Your task to perform on an android device: Add "razer deathadder" to the cart on walmart.com Image 0: 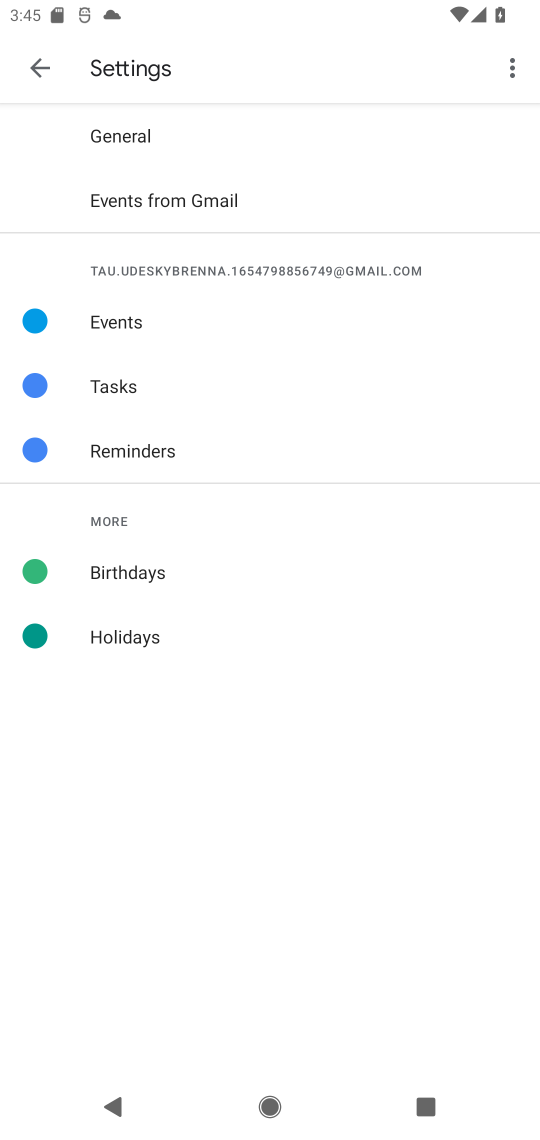
Step 0: press home button
Your task to perform on an android device: Add "razer deathadder" to the cart on walmart.com Image 1: 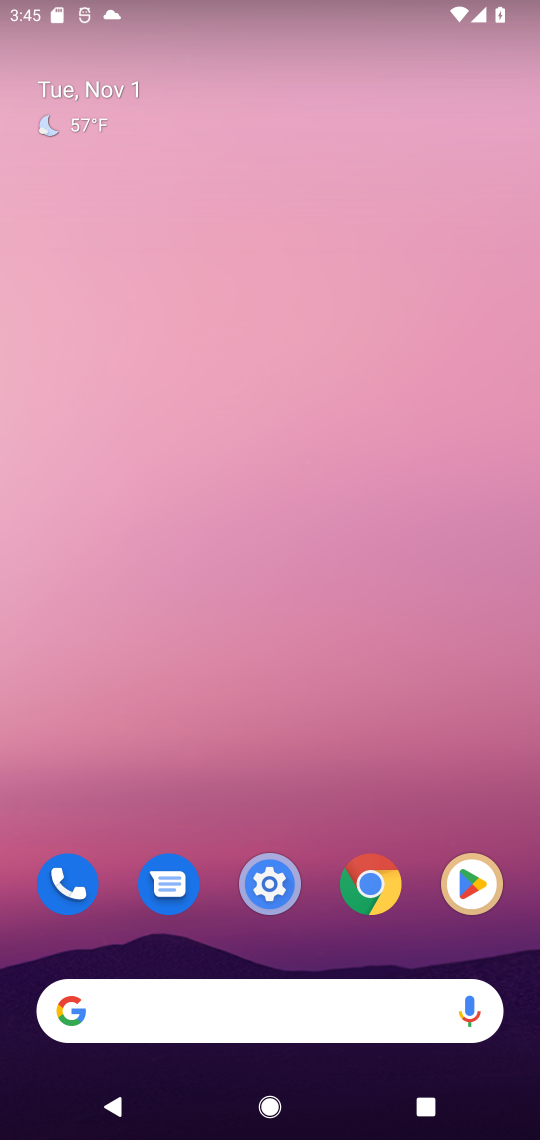
Step 1: click (100, 1005)
Your task to perform on an android device: Add "razer deathadder" to the cart on walmart.com Image 2: 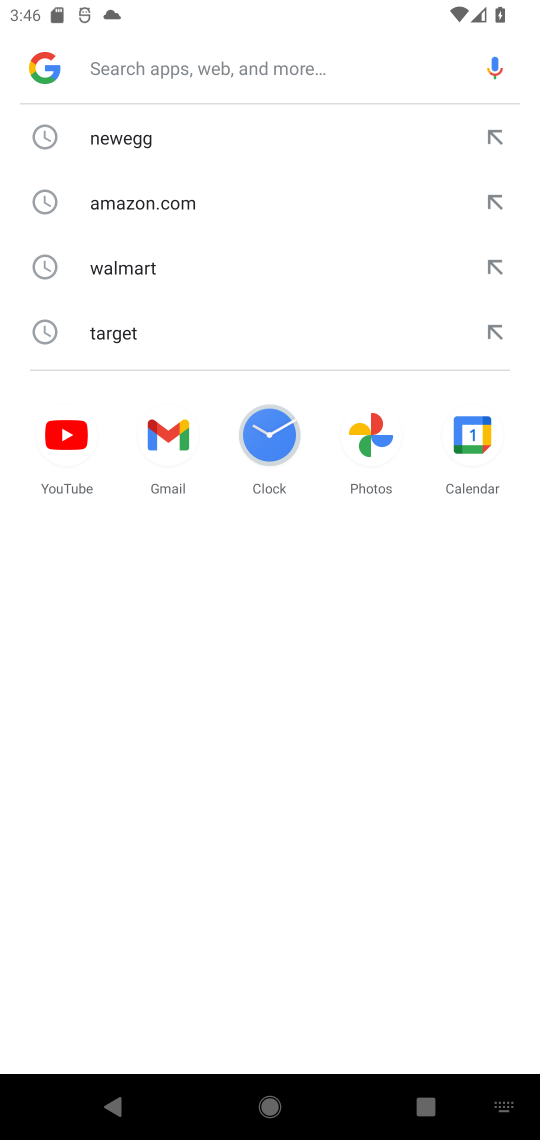
Step 2: press enter
Your task to perform on an android device: Add "razer deathadder" to the cart on walmart.com Image 3: 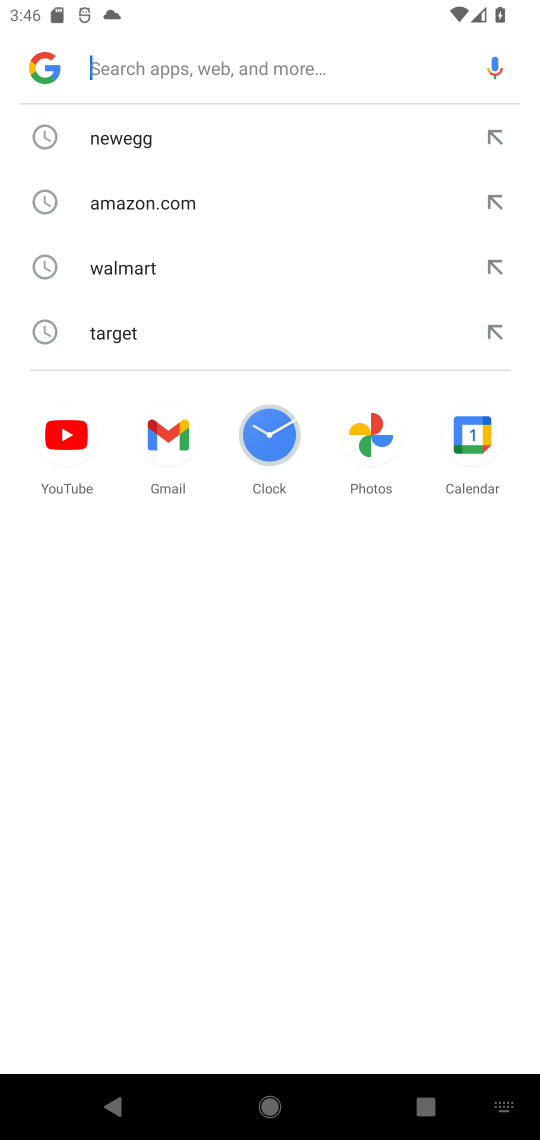
Step 3: type " walmart.com"
Your task to perform on an android device: Add "razer deathadder" to the cart on walmart.com Image 4: 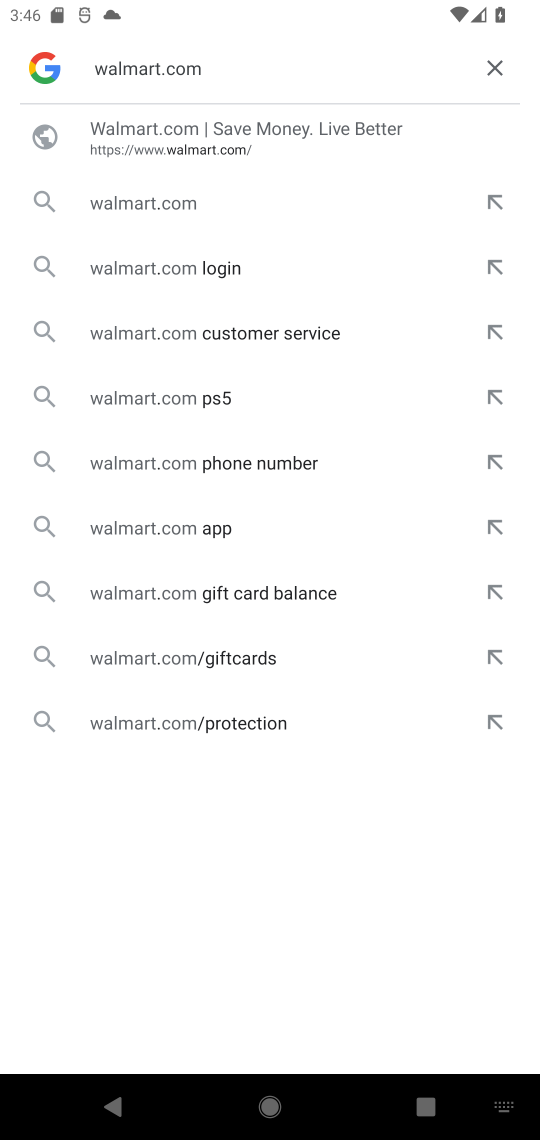
Step 4: press enter
Your task to perform on an android device: Add "razer deathadder" to the cart on walmart.com Image 5: 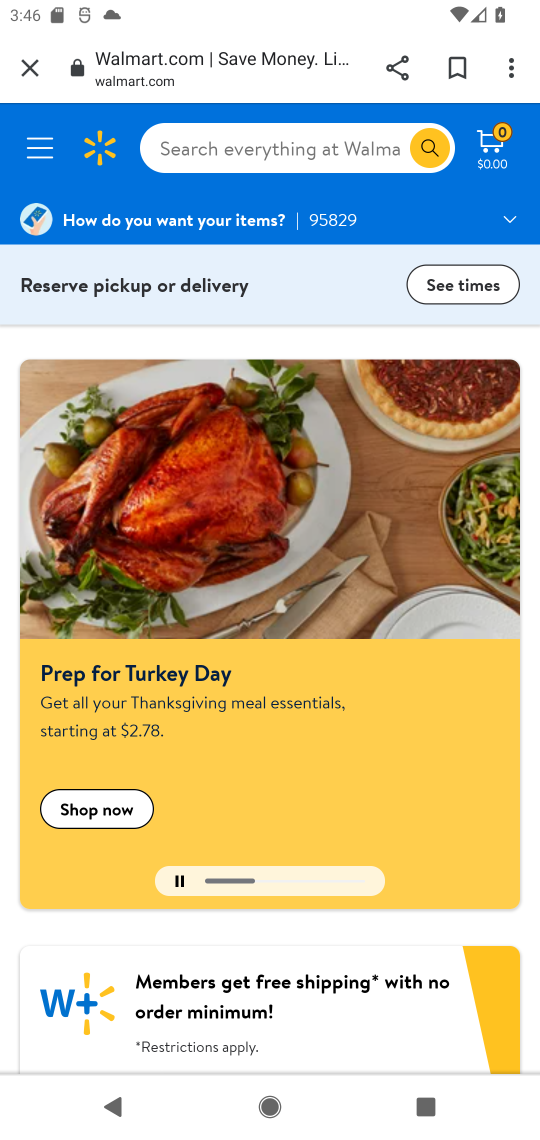
Step 5: click (165, 142)
Your task to perform on an android device: Add "razer deathadder" to the cart on walmart.com Image 6: 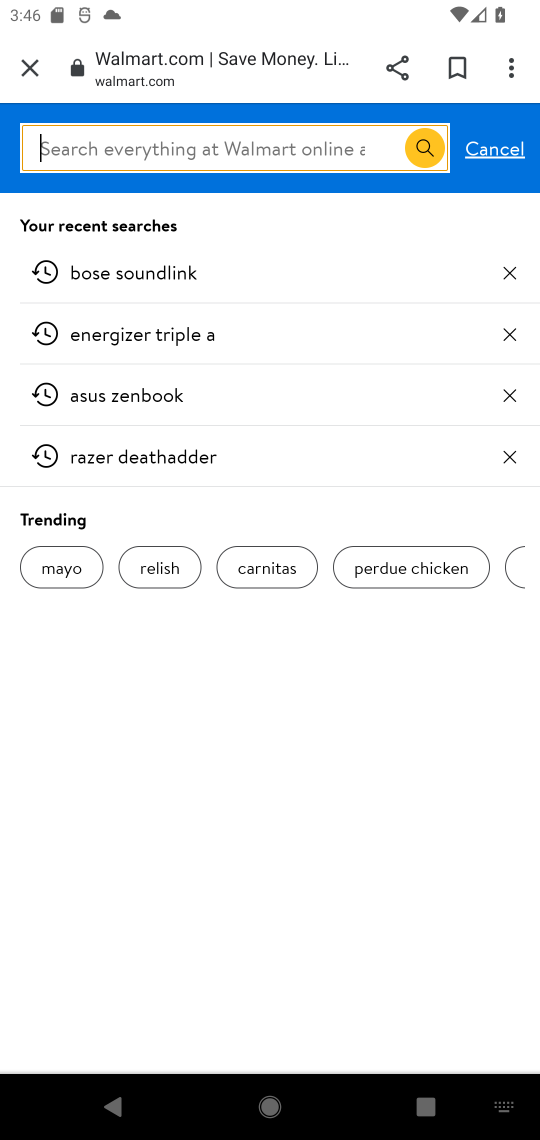
Step 6: type "razer deathadder"
Your task to perform on an android device: Add "razer deathadder" to the cart on walmart.com Image 7: 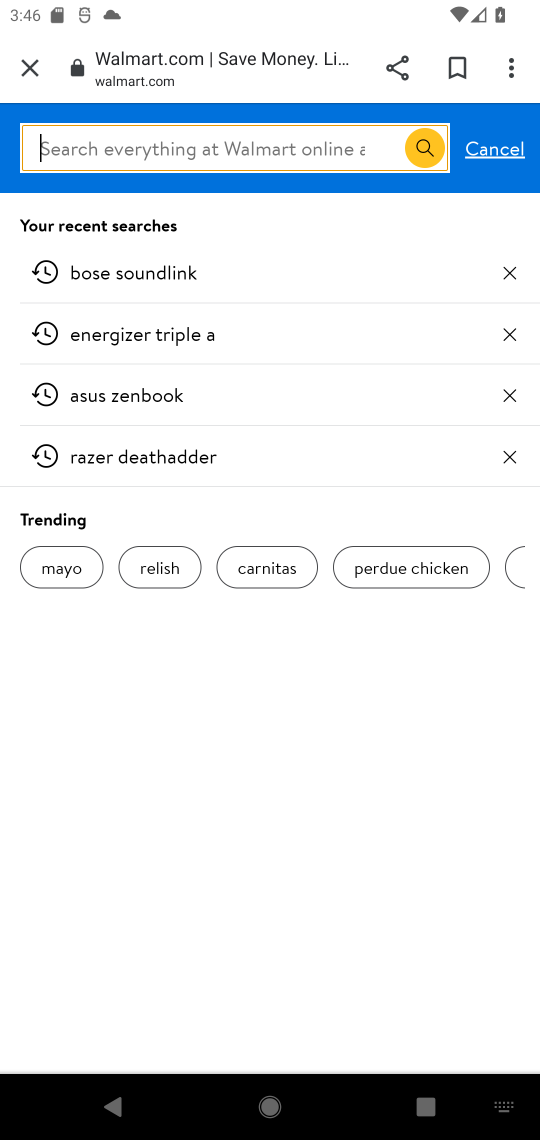
Step 7: press enter
Your task to perform on an android device: Add "razer deathadder" to the cart on walmart.com Image 8: 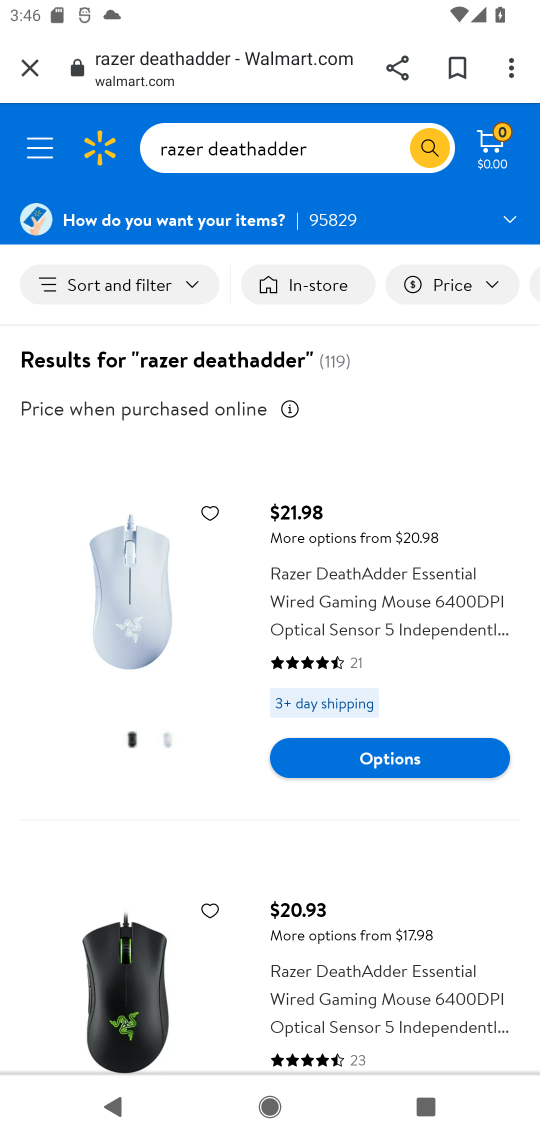
Step 8: click (363, 611)
Your task to perform on an android device: Add "razer deathadder" to the cart on walmart.com Image 9: 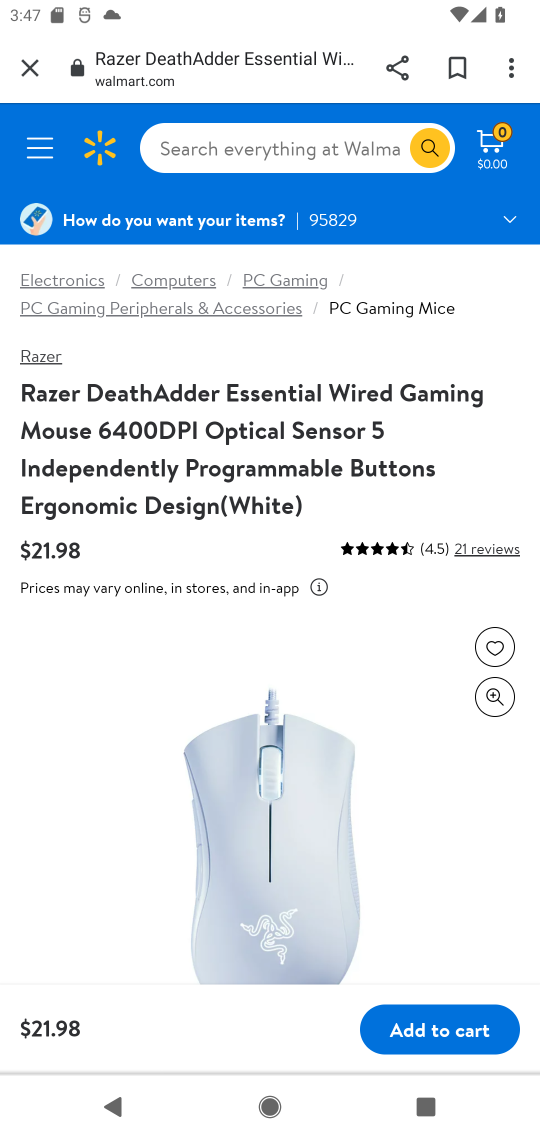
Step 9: click (428, 1040)
Your task to perform on an android device: Add "razer deathadder" to the cart on walmart.com Image 10: 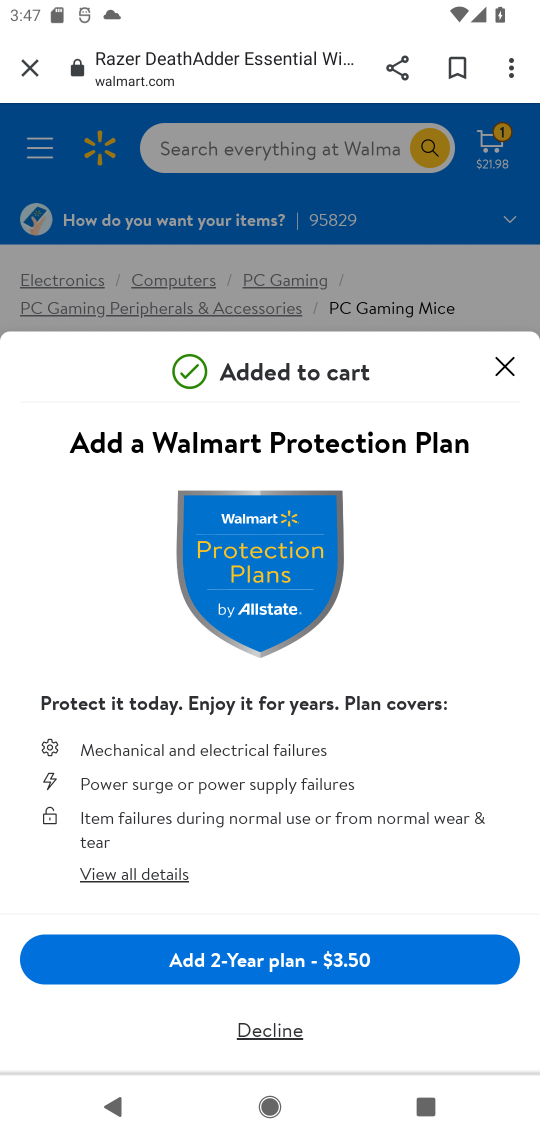
Step 10: click (259, 949)
Your task to perform on an android device: Add "razer deathadder" to the cart on walmart.com Image 11: 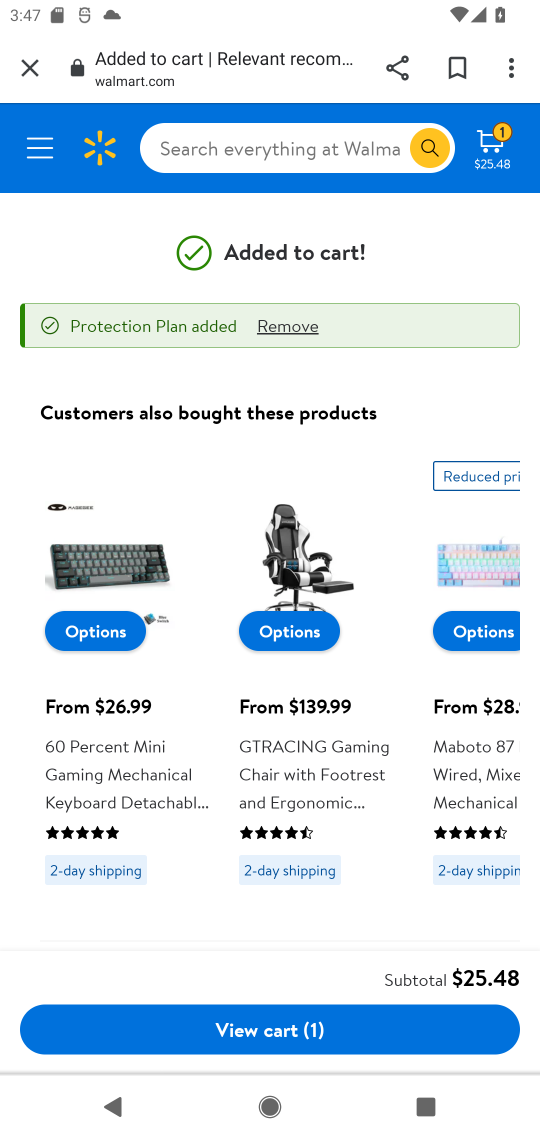
Step 11: task complete